Your task to perform on an android device: toggle translation in the chrome app Image 0: 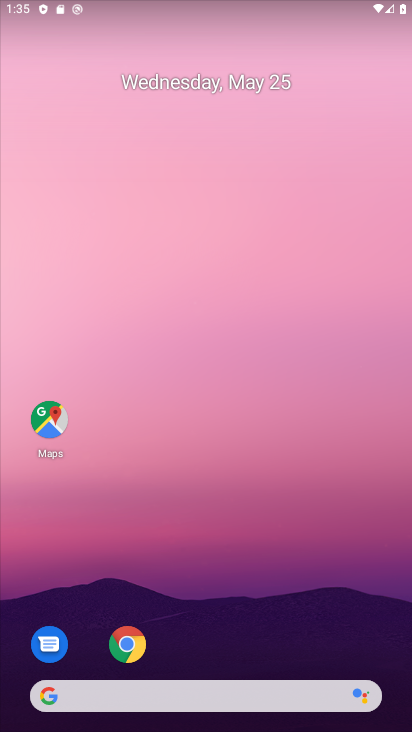
Step 0: drag from (343, 593) to (342, 114)
Your task to perform on an android device: toggle translation in the chrome app Image 1: 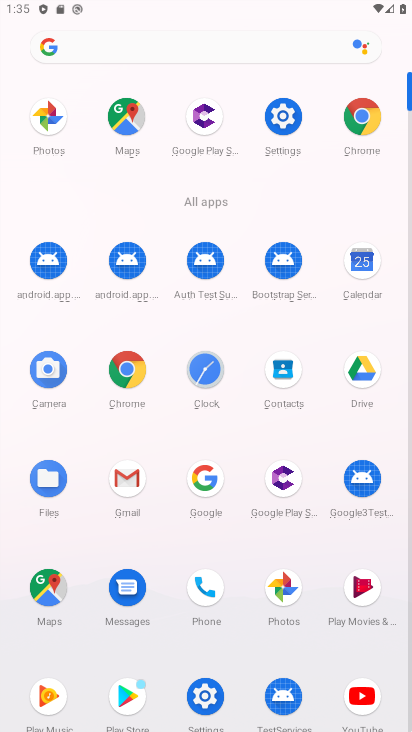
Step 1: click (119, 379)
Your task to perform on an android device: toggle translation in the chrome app Image 2: 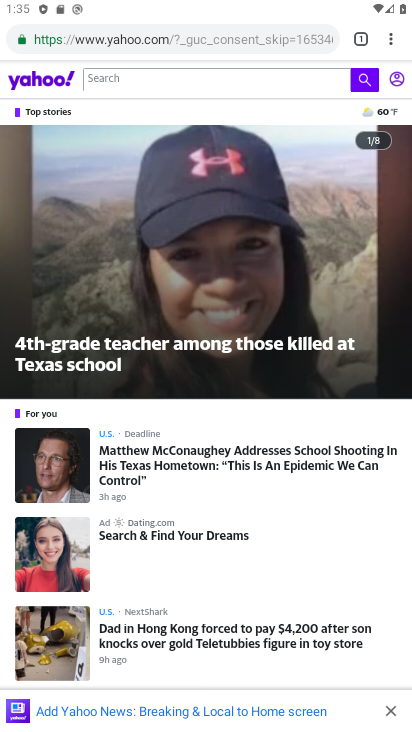
Step 2: click (391, 42)
Your task to perform on an android device: toggle translation in the chrome app Image 3: 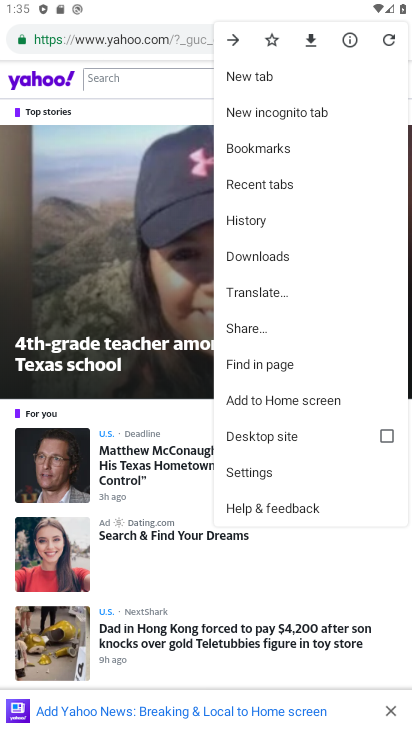
Step 3: click (266, 475)
Your task to perform on an android device: toggle translation in the chrome app Image 4: 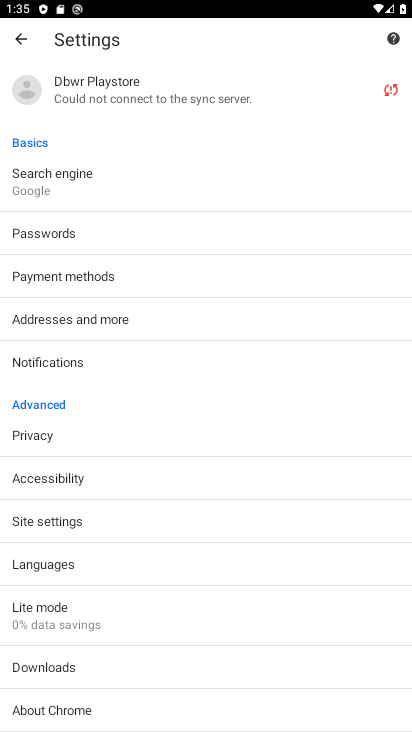
Step 4: drag from (251, 549) to (271, 470)
Your task to perform on an android device: toggle translation in the chrome app Image 5: 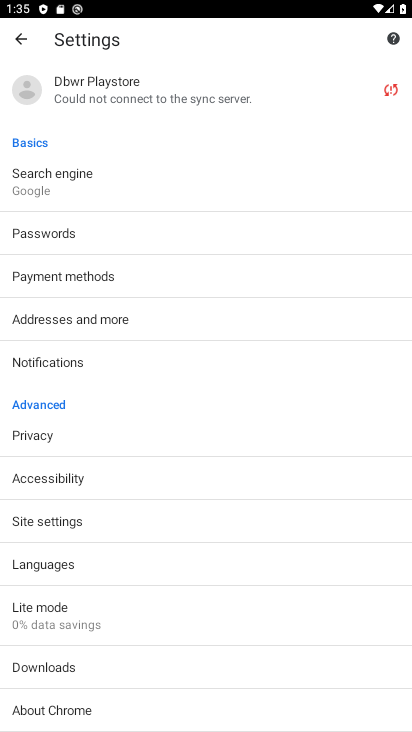
Step 5: click (181, 564)
Your task to perform on an android device: toggle translation in the chrome app Image 6: 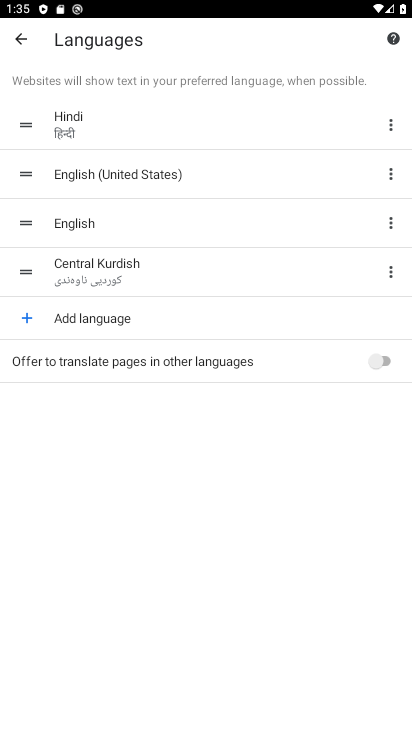
Step 6: click (371, 371)
Your task to perform on an android device: toggle translation in the chrome app Image 7: 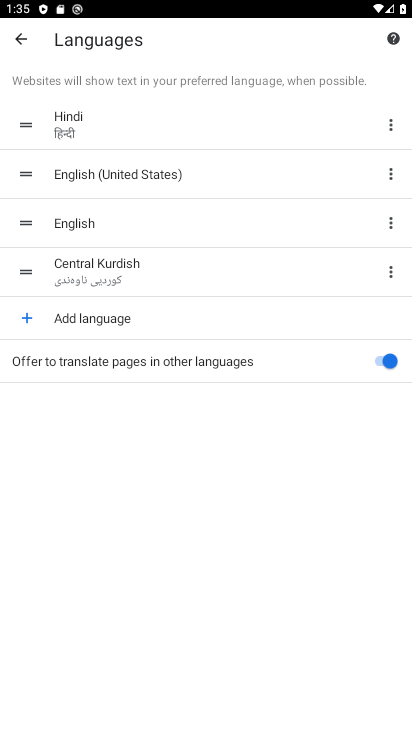
Step 7: task complete